Your task to perform on an android device: Empty the shopping cart on amazon.com. Add panasonic triple a to the cart on amazon.com, then select checkout. Image 0: 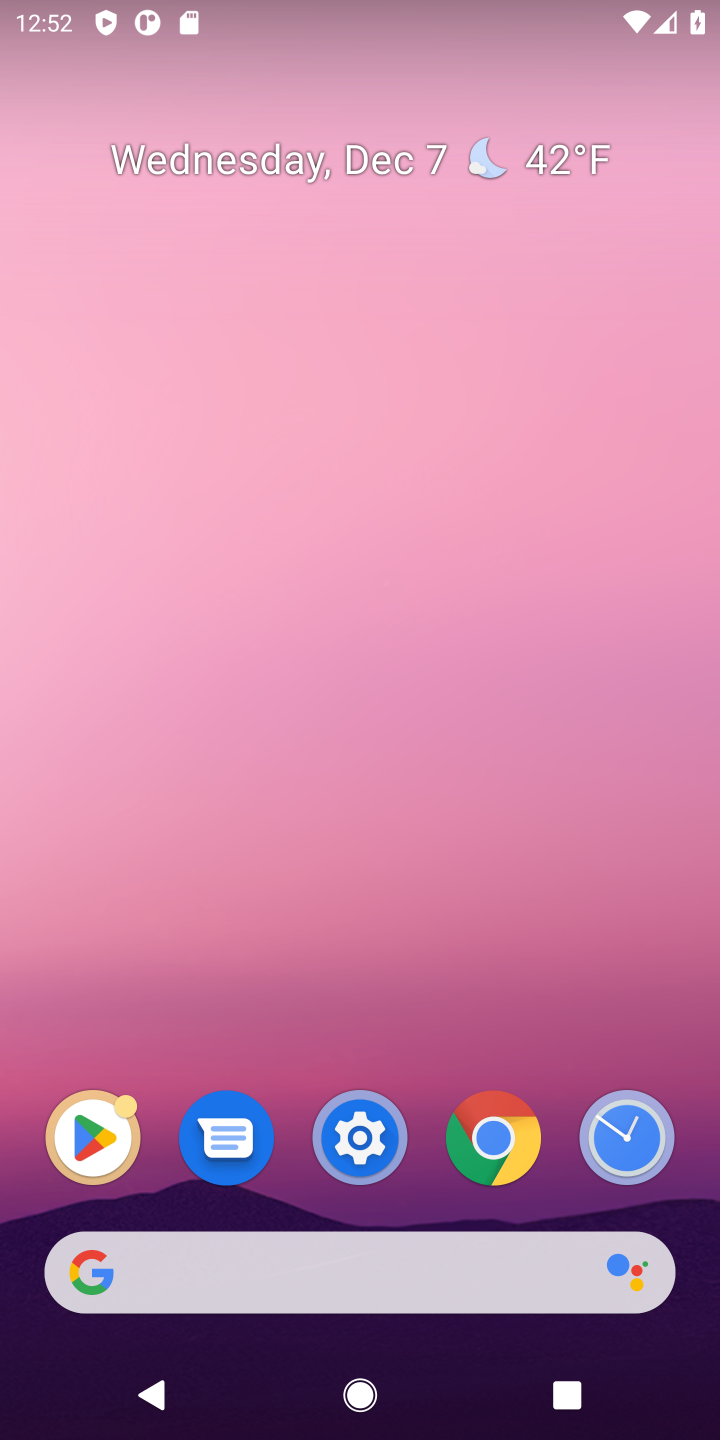
Step 0: click (240, 1249)
Your task to perform on an android device: Empty the shopping cart on amazon.com. Add panasonic triple a to the cart on amazon.com, then select checkout. Image 1: 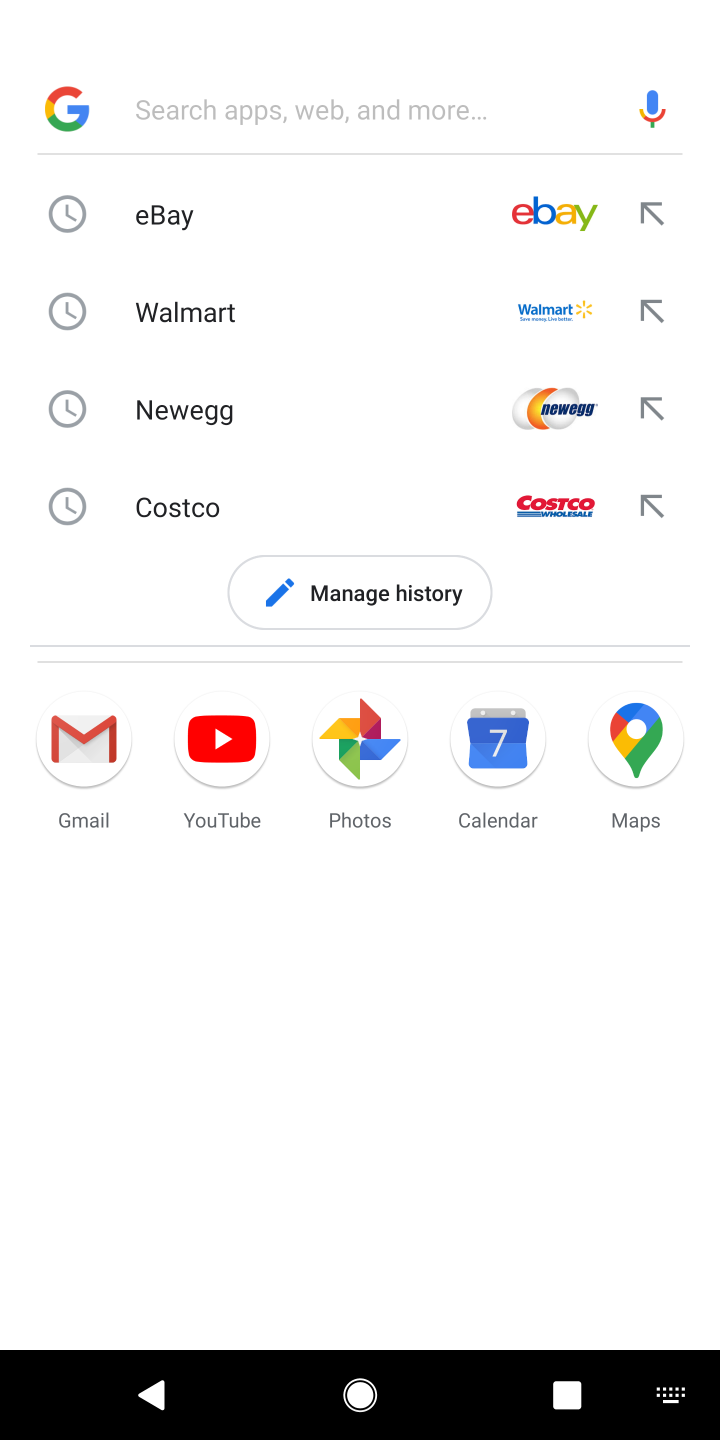
Step 1: type "amazob"
Your task to perform on an android device: Empty the shopping cart on amazon.com. Add panasonic triple a to the cart on amazon.com, then select checkout. Image 2: 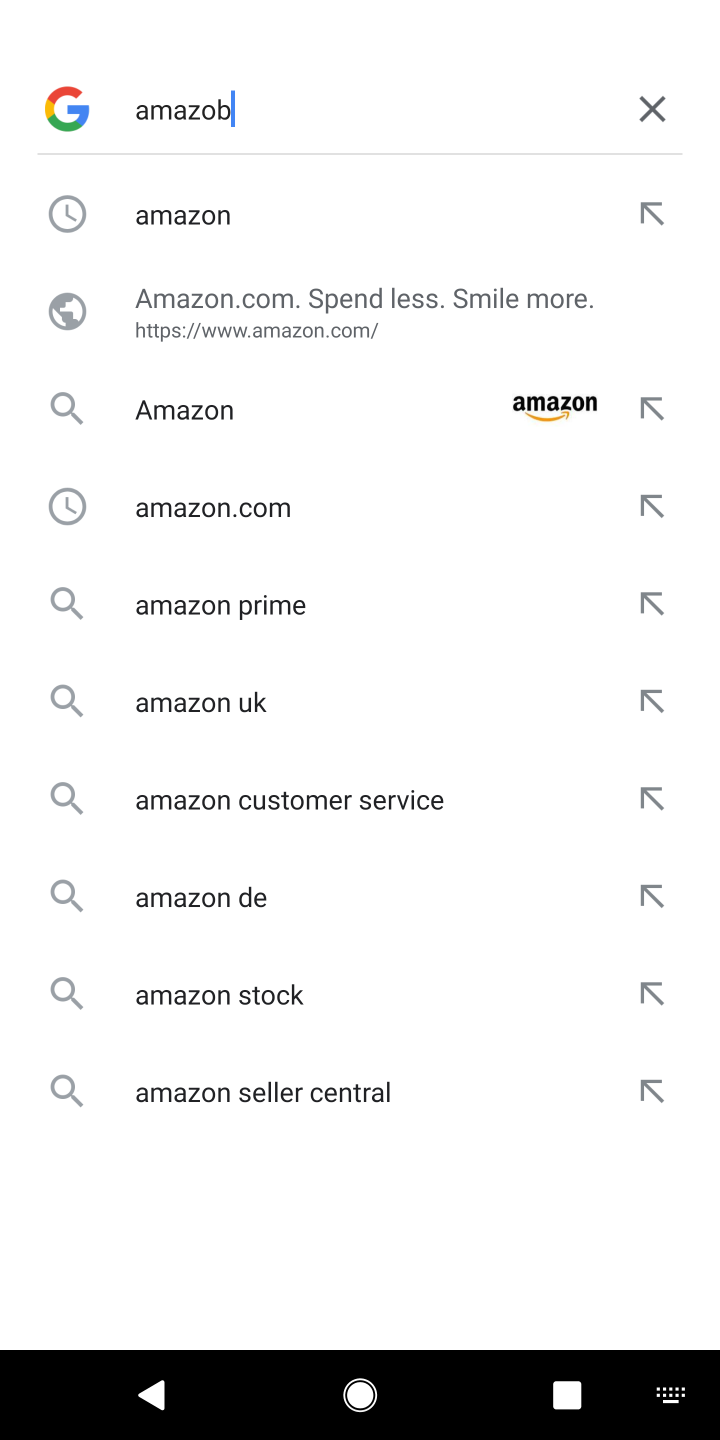
Step 2: click (201, 326)
Your task to perform on an android device: Empty the shopping cart on amazon.com. Add panasonic triple a to the cart on amazon.com, then select checkout. Image 3: 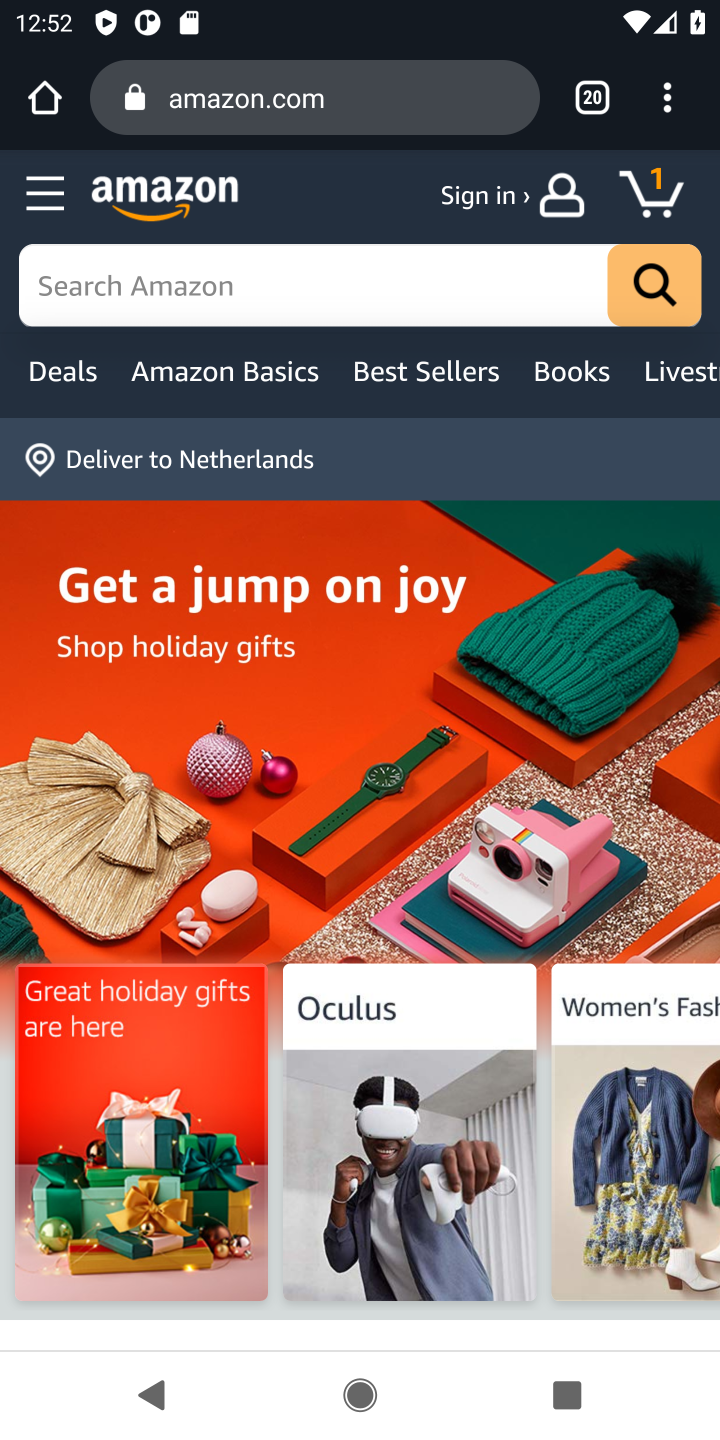
Step 3: click (151, 288)
Your task to perform on an android device: Empty the shopping cart on amazon.com. Add panasonic triple a to the cart on amazon.com, then select checkout. Image 4: 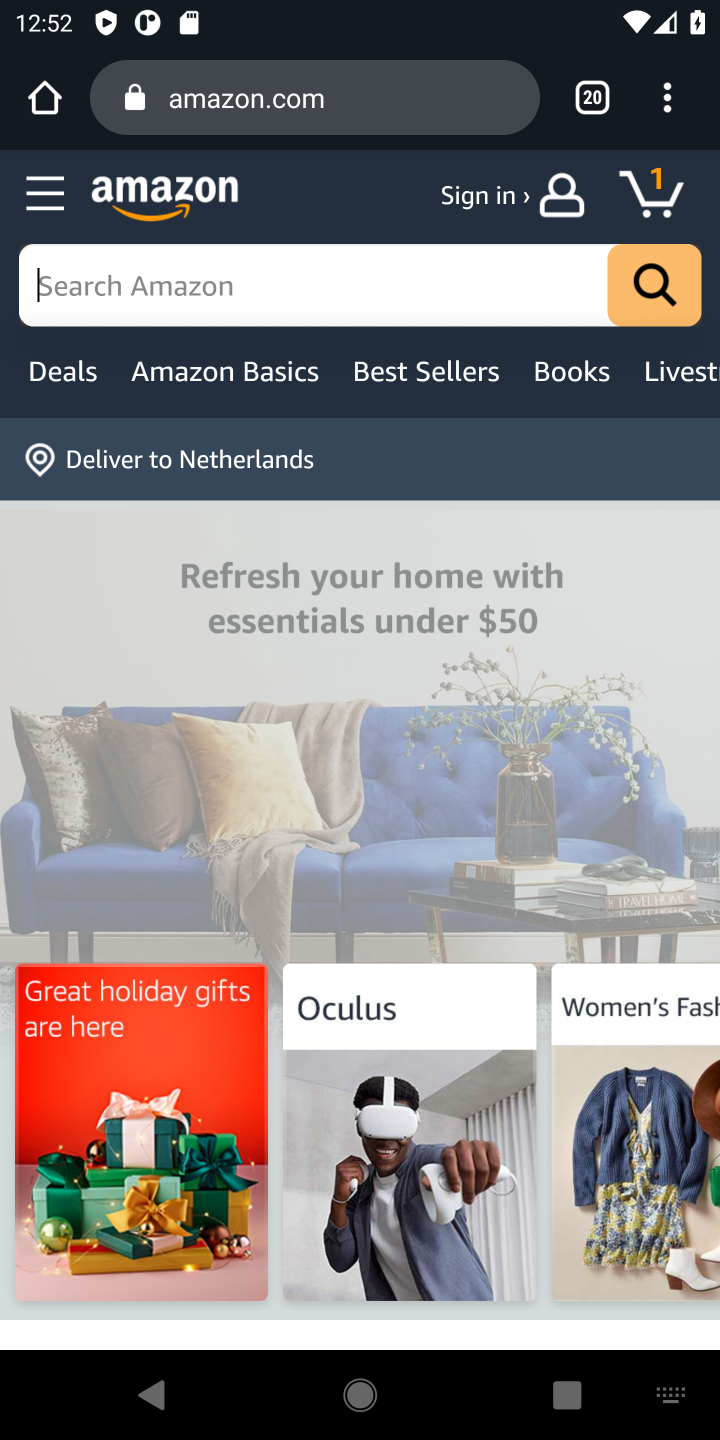
Step 4: type ""
Your task to perform on an android device: Empty the shopping cart on amazon.com. Add panasonic triple a to the cart on amazon.com, then select checkout. Image 5: 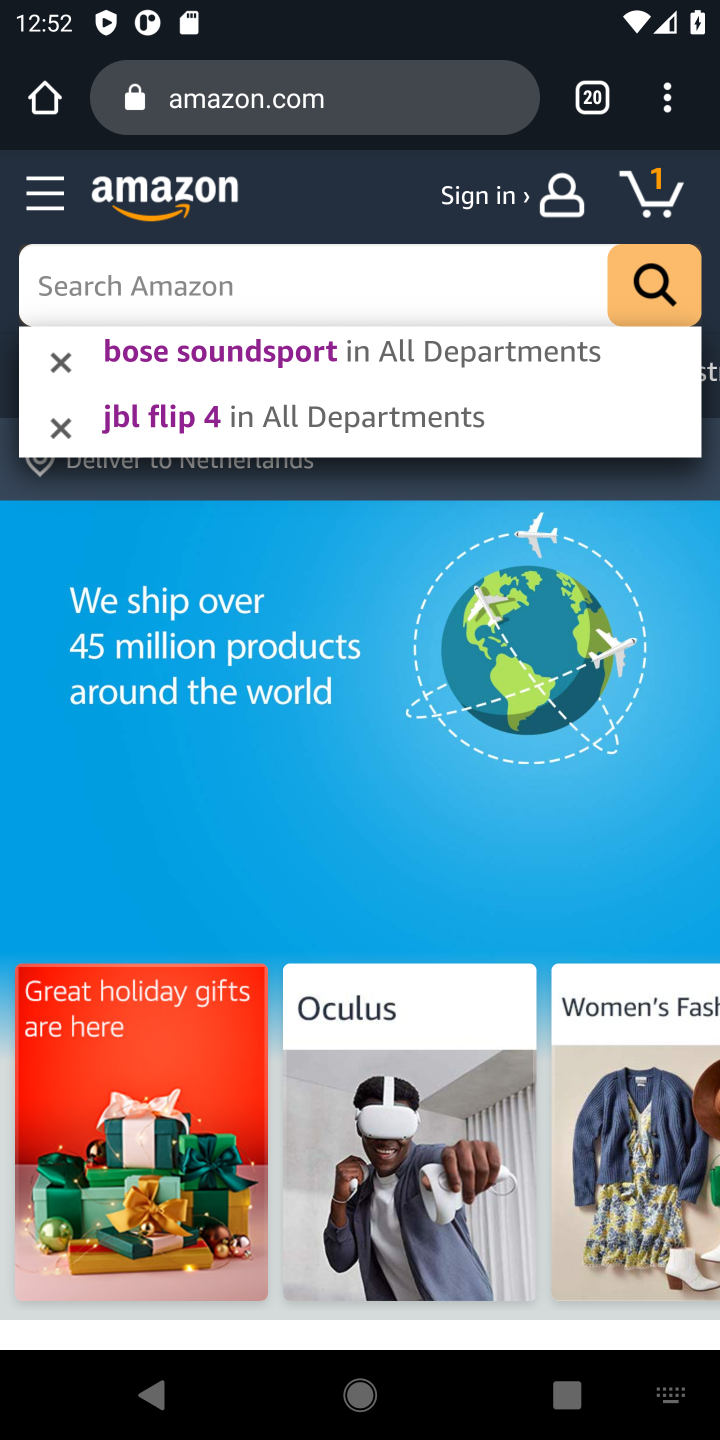
Step 5: type ""
Your task to perform on an android device: Empty the shopping cart on amazon.com. Add panasonic triple a to the cart on amazon.com, then select checkout. Image 6: 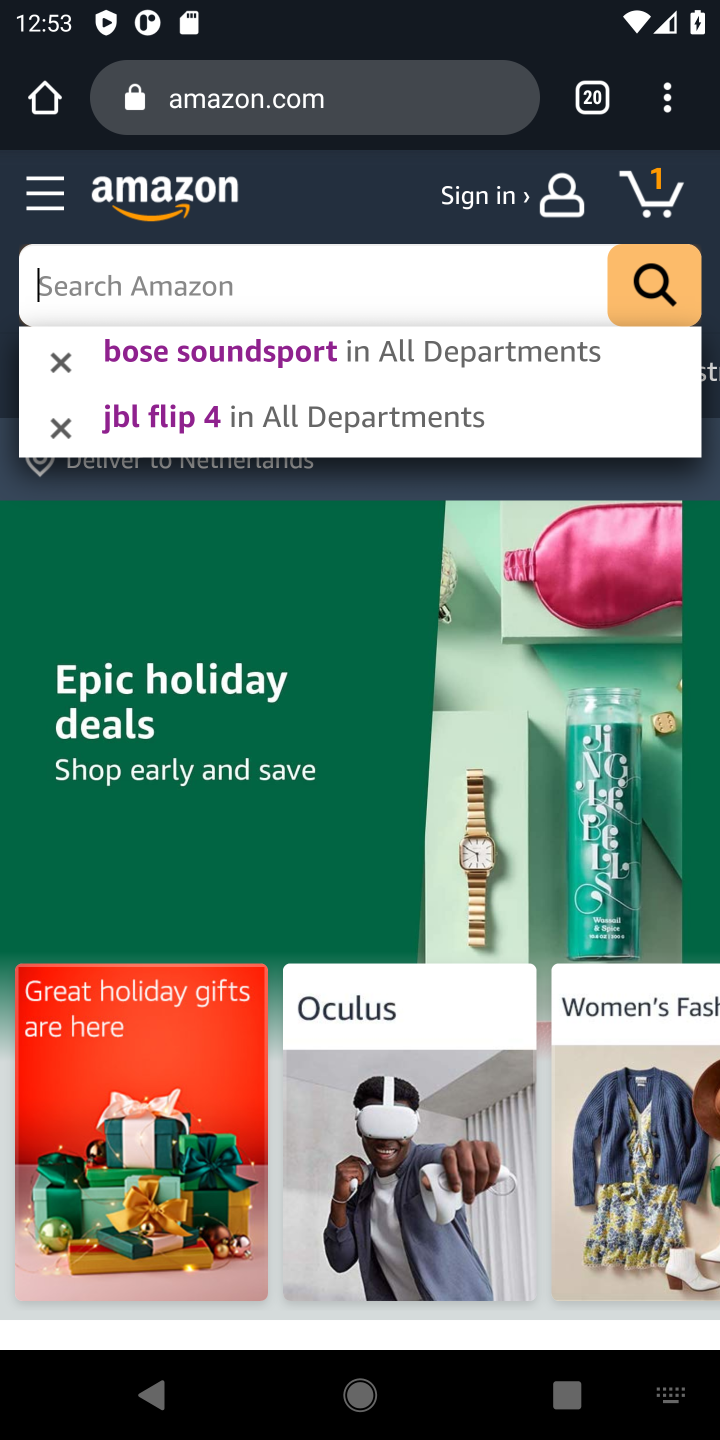
Step 6: type "panasonic triol"
Your task to perform on an android device: Empty the shopping cart on amazon.com. Add panasonic triple a to the cart on amazon.com, then select checkout. Image 7: 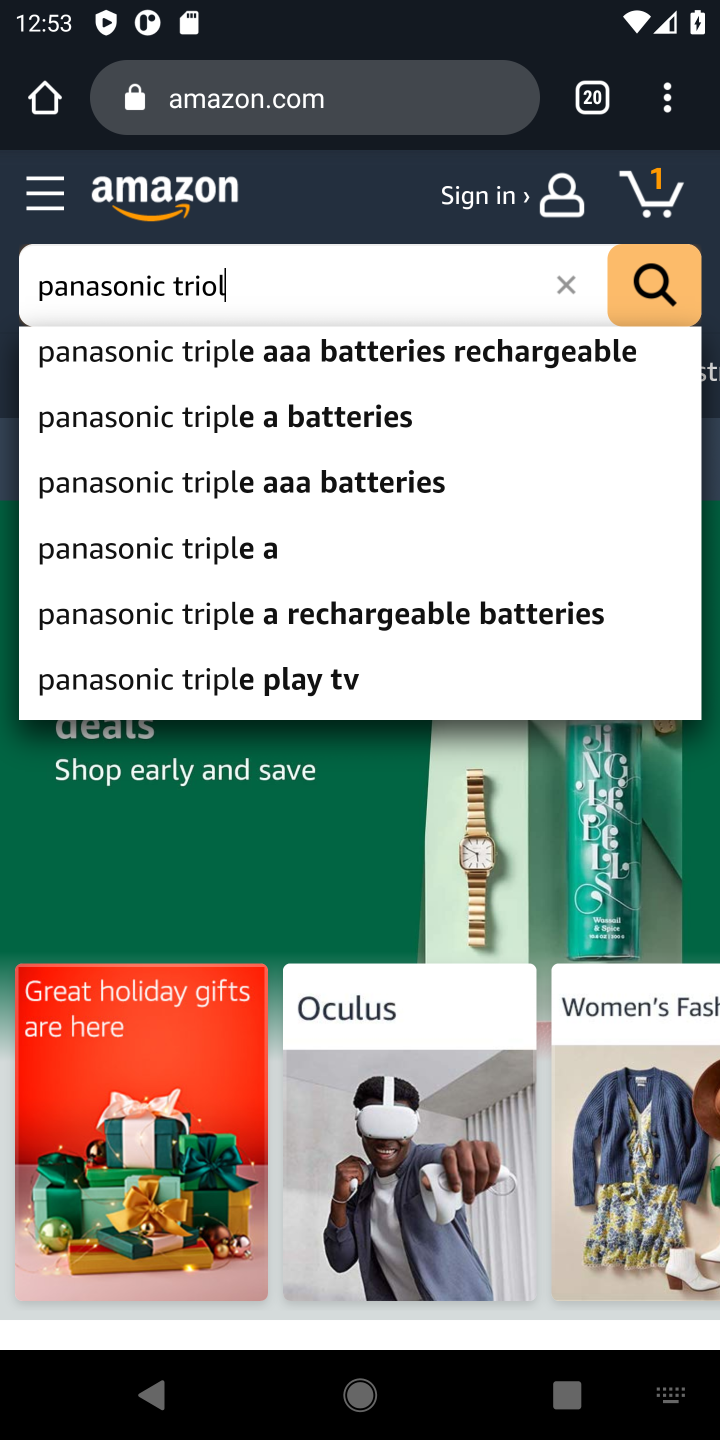
Step 7: click (315, 332)
Your task to perform on an android device: Empty the shopping cart on amazon.com. Add panasonic triple a to the cart on amazon.com, then select checkout. Image 8: 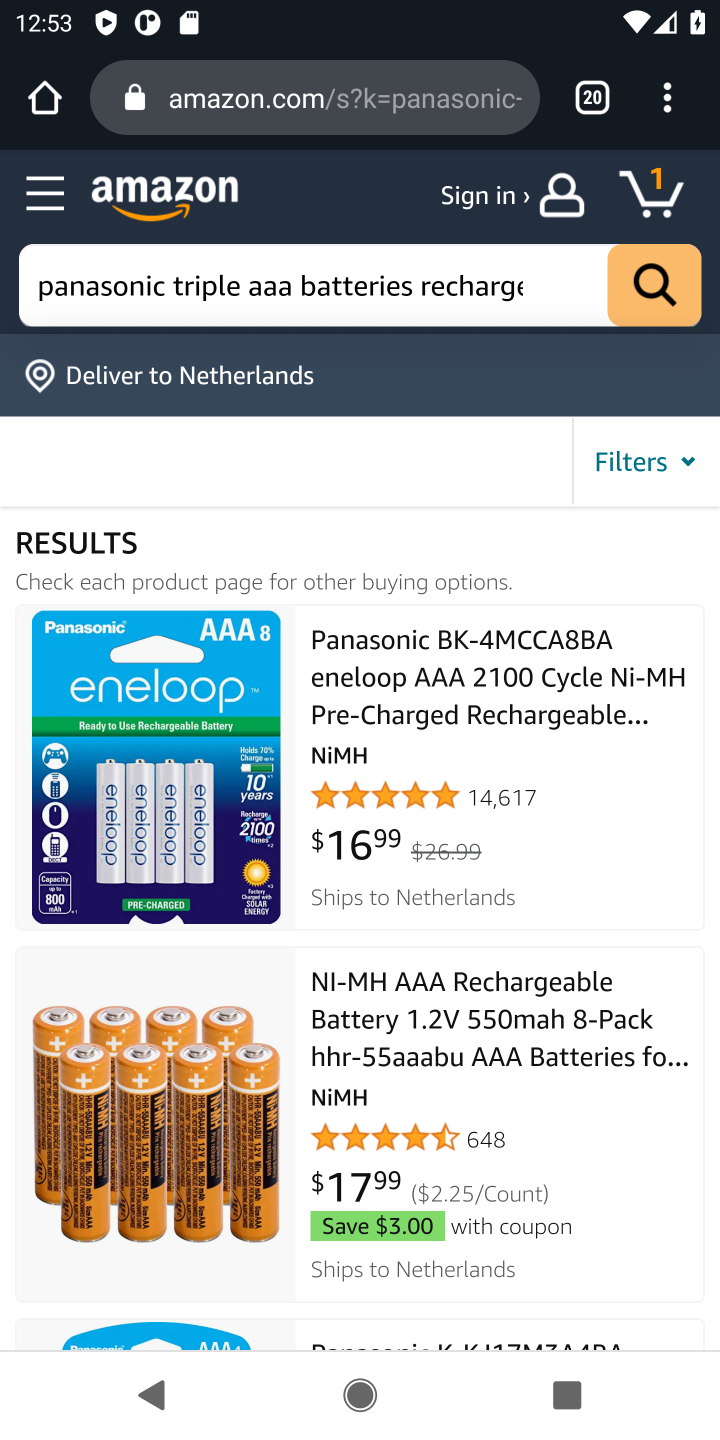
Step 8: click (226, 848)
Your task to perform on an android device: Empty the shopping cart on amazon.com. Add panasonic triple a to the cart on amazon.com, then select checkout. Image 9: 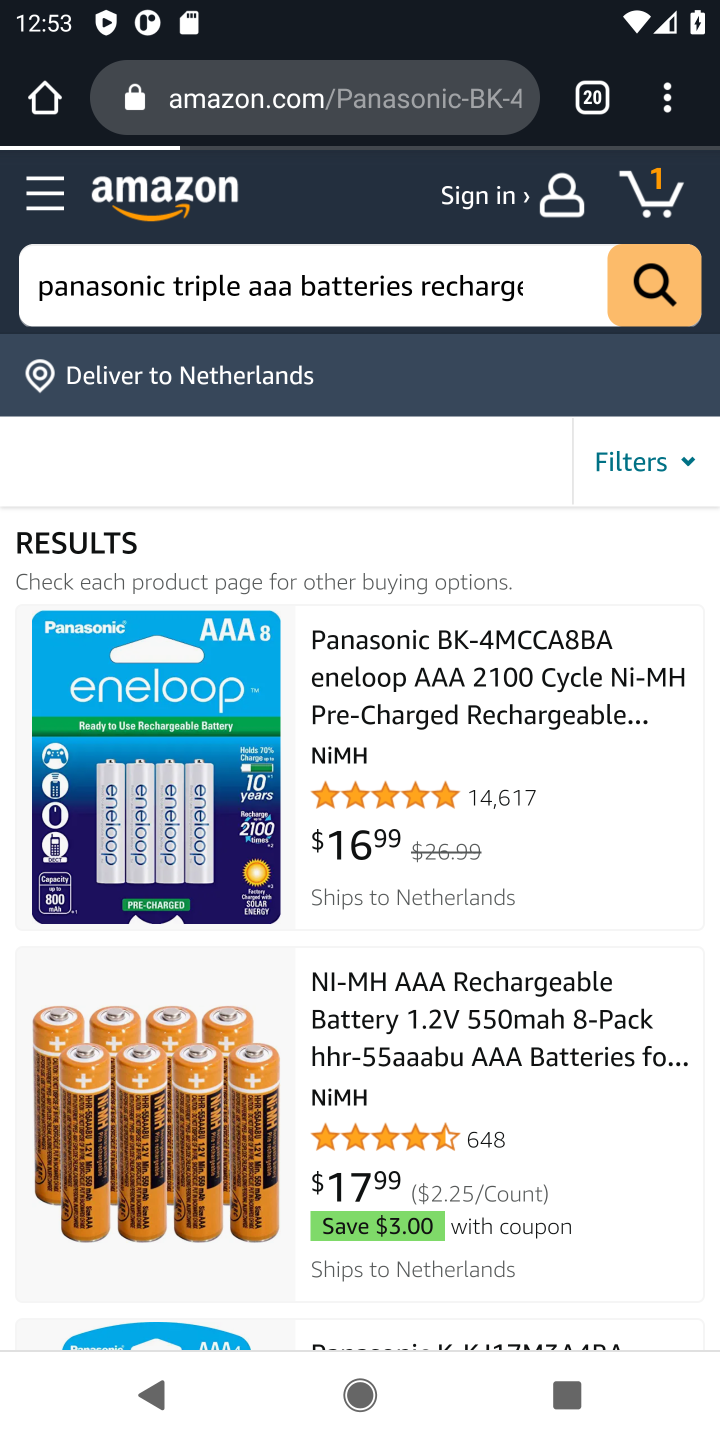
Step 9: click (471, 701)
Your task to perform on an android device: Empty the shopping cart on amazon.com. Add panasonic triple a to the cart on amazon.com, then select checkout. Image 10: 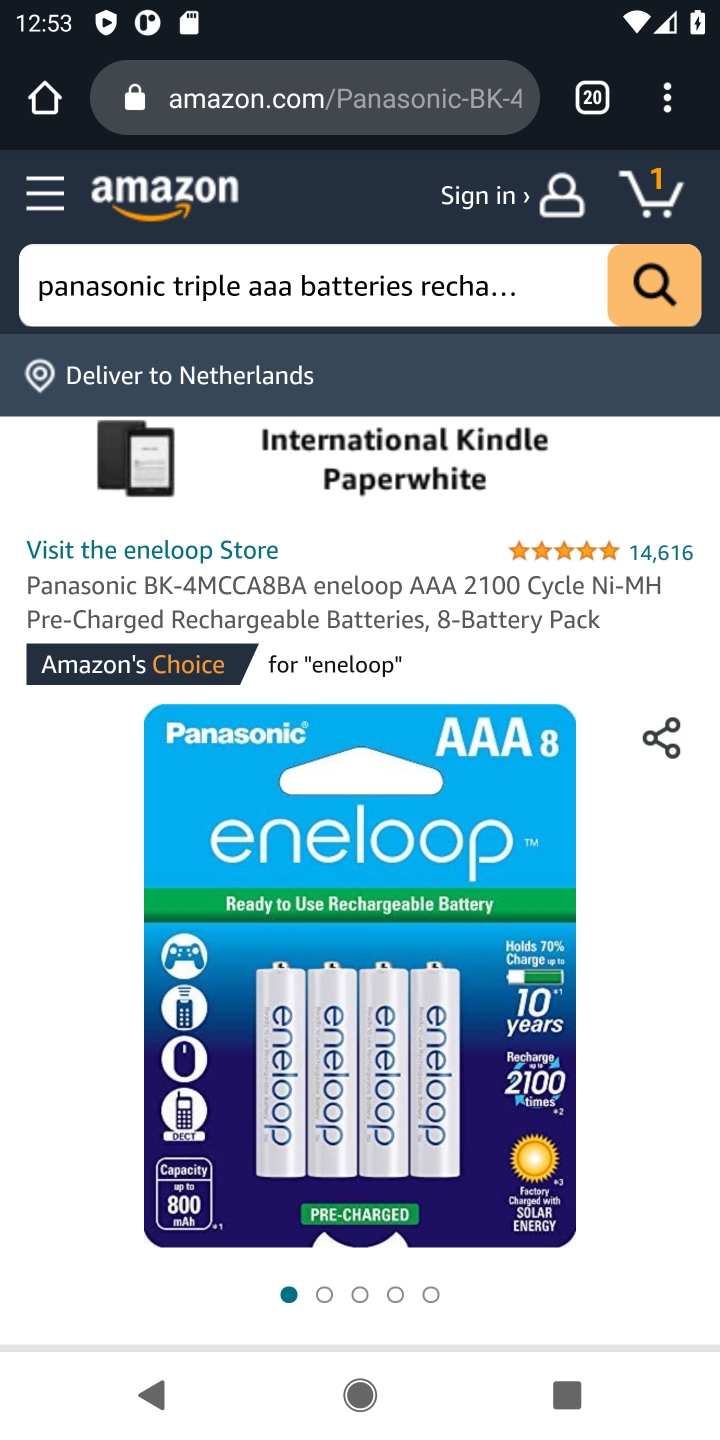
Step 10: drag from (642, 1246) to (396, 132)
Your task to perform on an android device: Empty the shopping cart on amazon.com. Add panasonic triple a to the cart on amazon.com, then select checkout. Image 11: 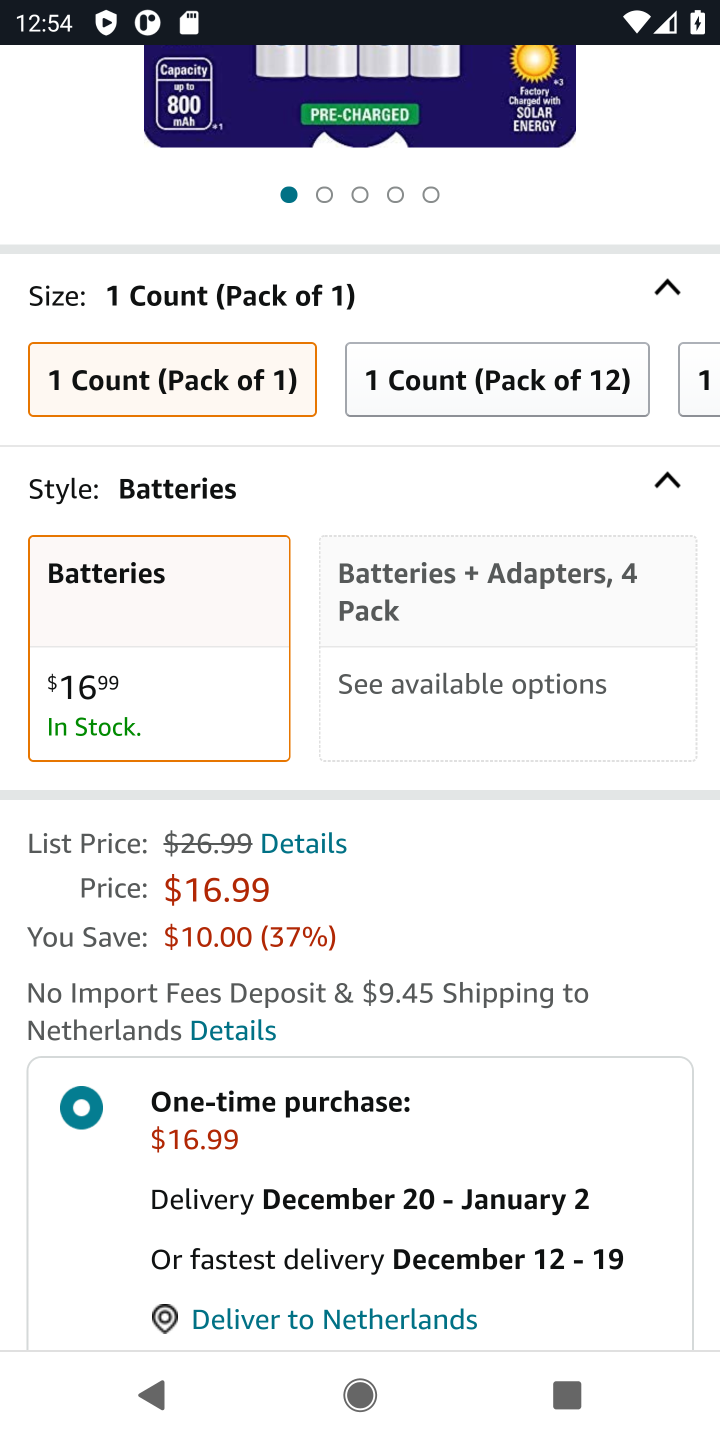
Step 11: drag from (462, 1119) to (459, 941)
Your task to perform on an android device: Empty the shopping cart on amazon.com. Add panasonic triple a to the cart on amazon.com, then select checkout. Image 12: 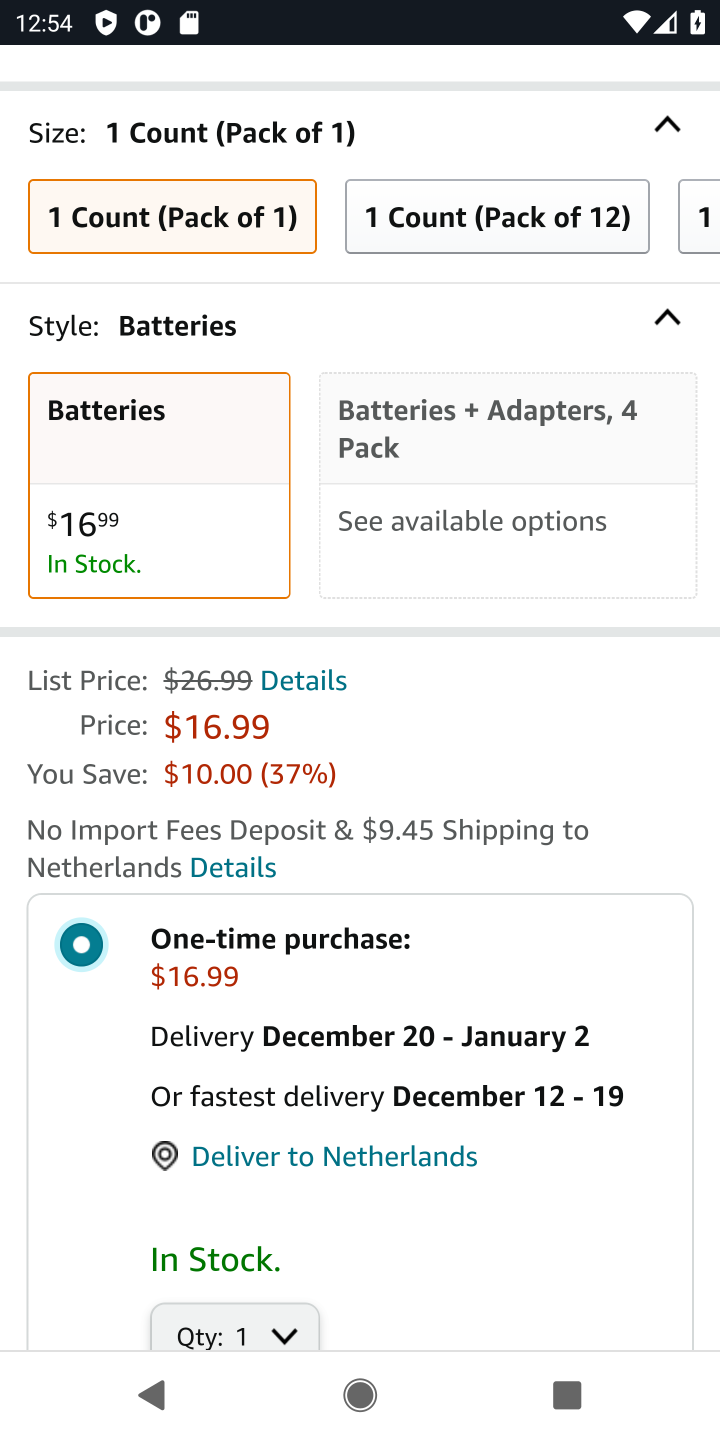
Step 12: drag from (459, 941) to (360, 261)
Your task to perform on an android device: Empty the shopping cart on amazon.com. Add panasonic triple a to the cart on amazon.com, then select checkout. Image 13: 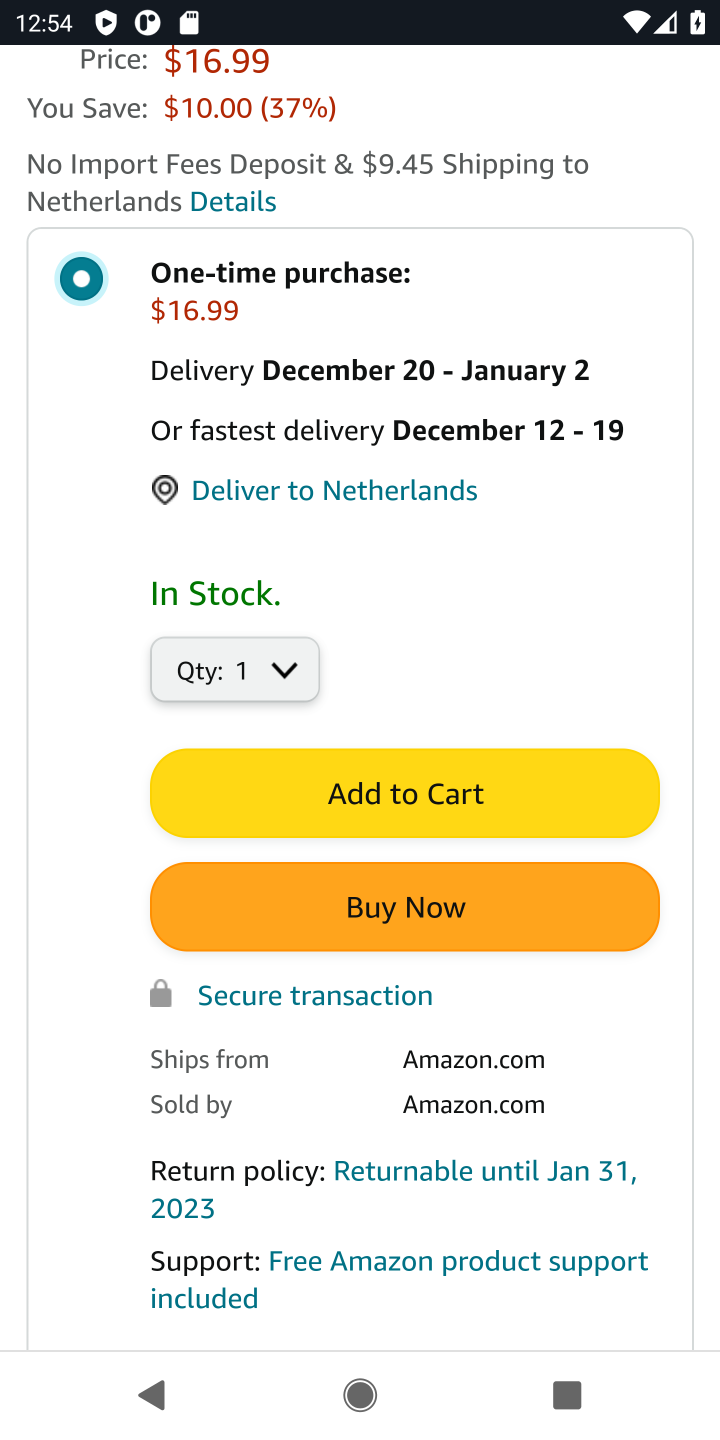
Step 13: click (399, 827)
Your task to perform on an android device: Empty the shopping cart on amazon.com. Add panasonic triple a to the cart on amazon.com, then select checkout. Image 14: 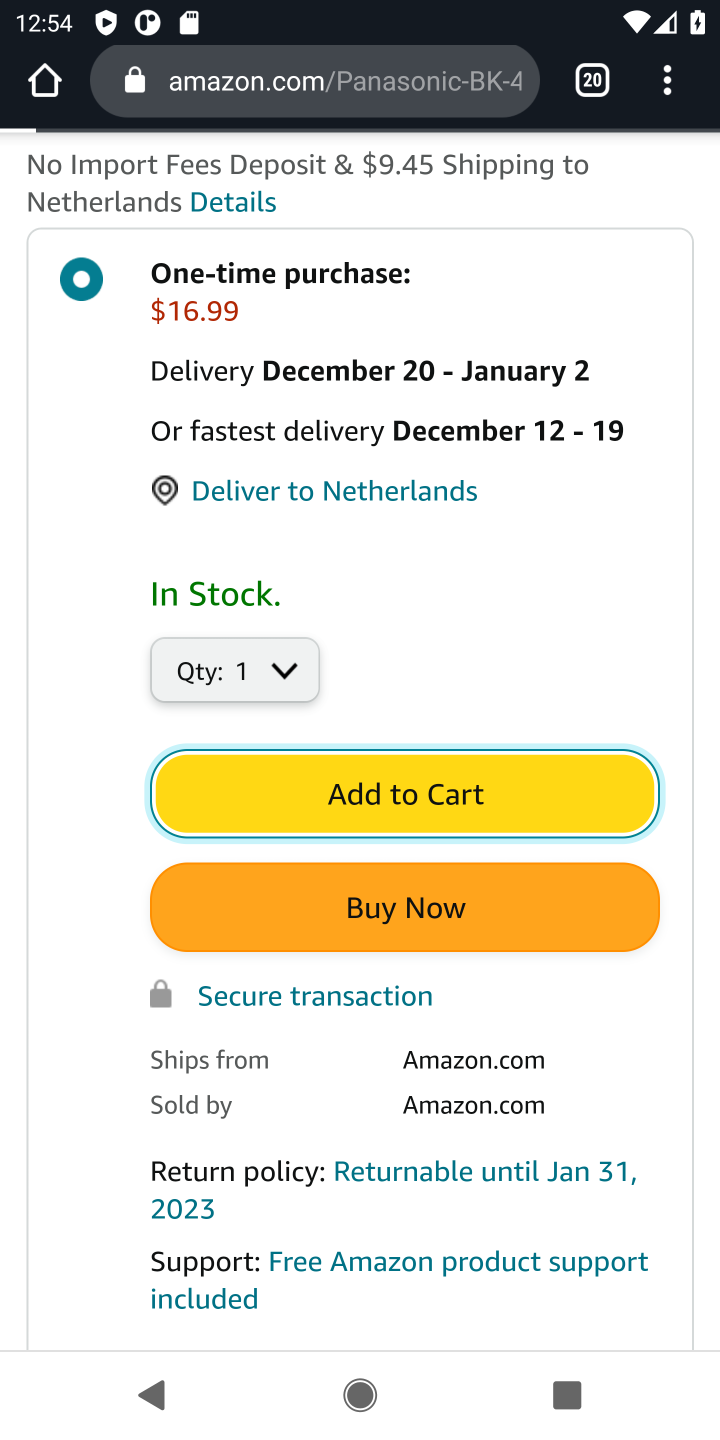
Step 14: task complete